Your task to perform on an android device: turn off notifications in google photos Image 0: 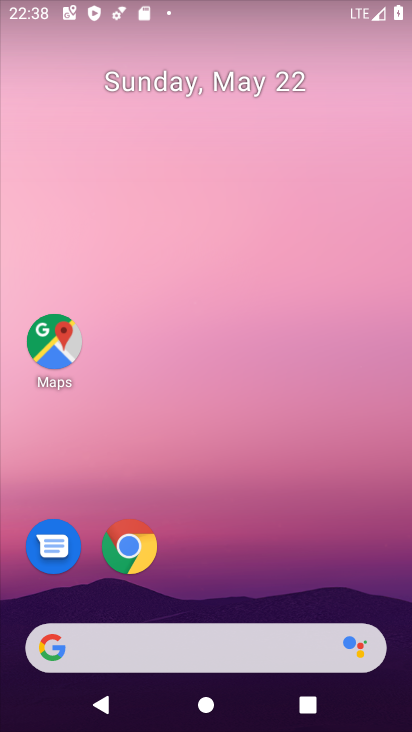
Step 0: click (341, 133)
Your task to perform on an android device: turn off notifications in google photos Image 1: 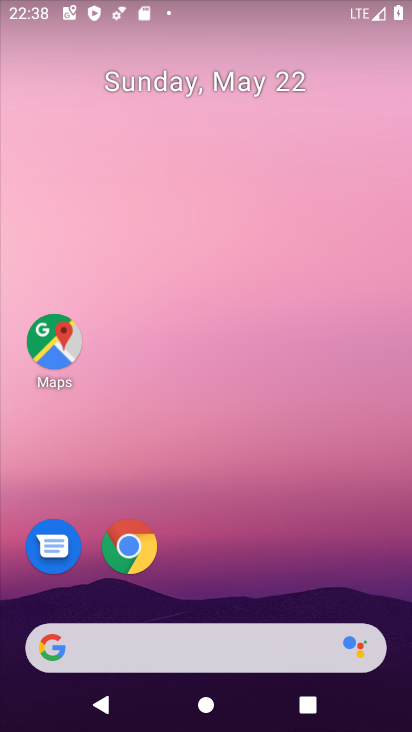
Step 1: drag from (174, 569) to (342, 0)
Your task to perform on an android device: turn off notifications in google photos Image 2: 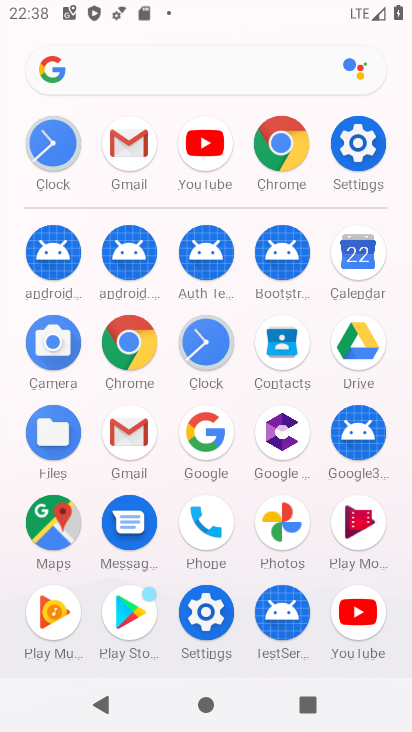
Step 2: click (278, 520)
Your task to perform on an android device: turn off notifications in google photos Image 3: 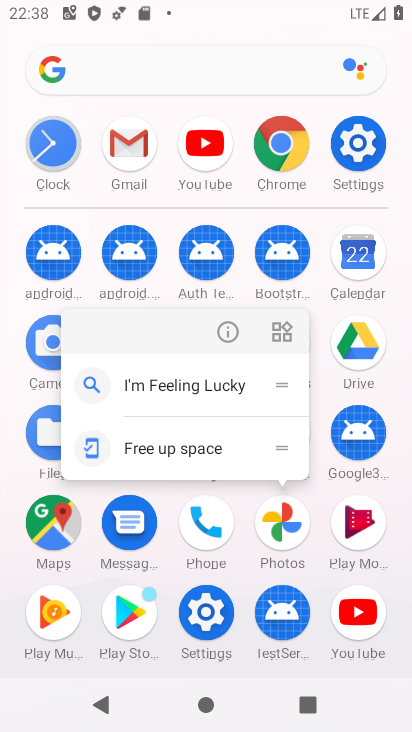
Step 3: click (214, 339)
Your task to perform on an android device: turn off notifications in google photos Image 4: 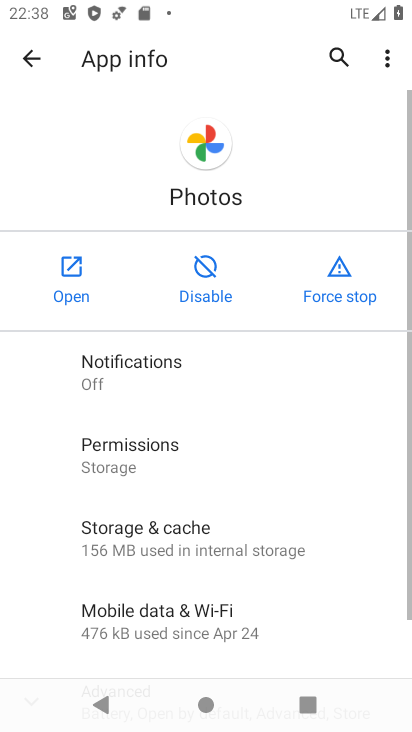
Step 4: click (75, 286)
Your task to perform on an android device: turn off notifications in google photos Image 5: 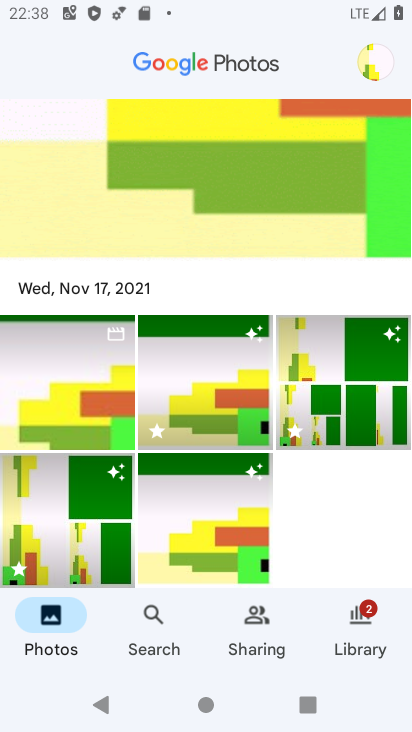
Step 5: click (347, 623)
Your task to perform on an android device: turn off notifications in google photos Image 6: 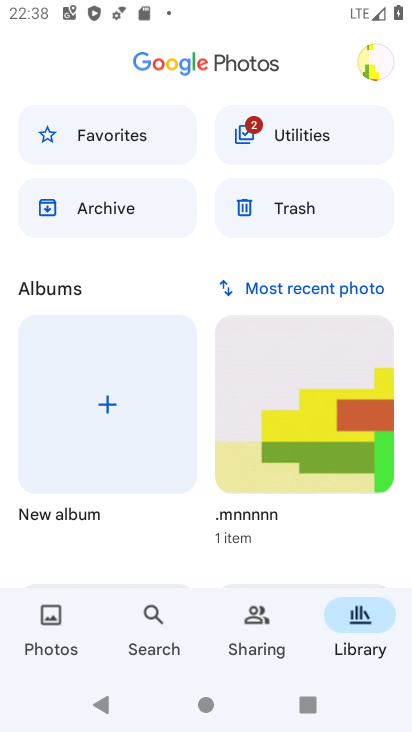
Step 6: click (383, 82)
Your task to perform on an android device: turn off notifications in google photos Image 7: 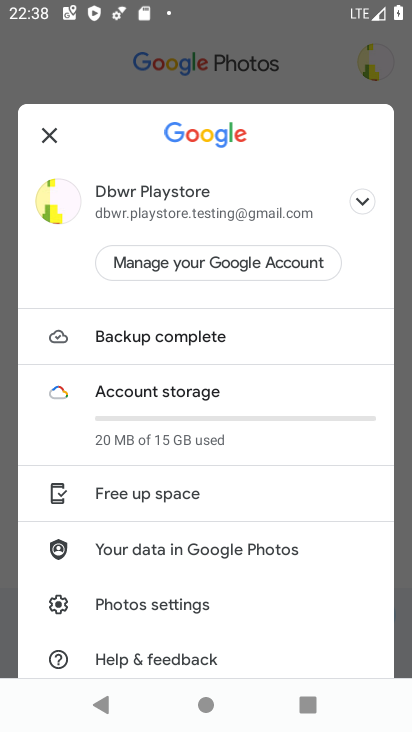
Step 7: click (130, 612)
Your task to perform on an android device: turn off notifications in google photos Image 8: 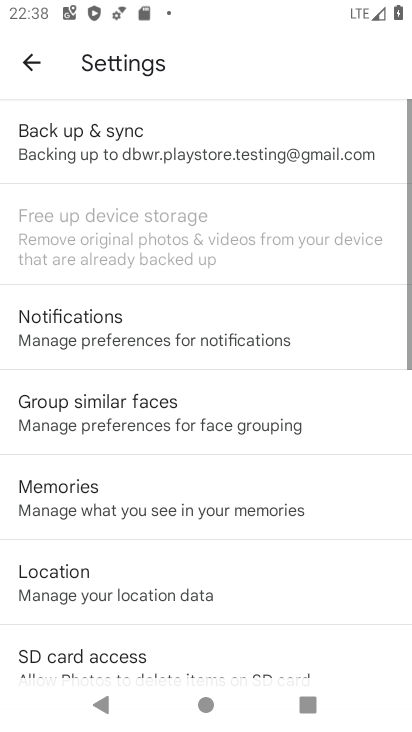
Step 8: drag from (190, 541) to (263, 97)
Your task to perform on an android device: turn off notifications in google photos Image 9: 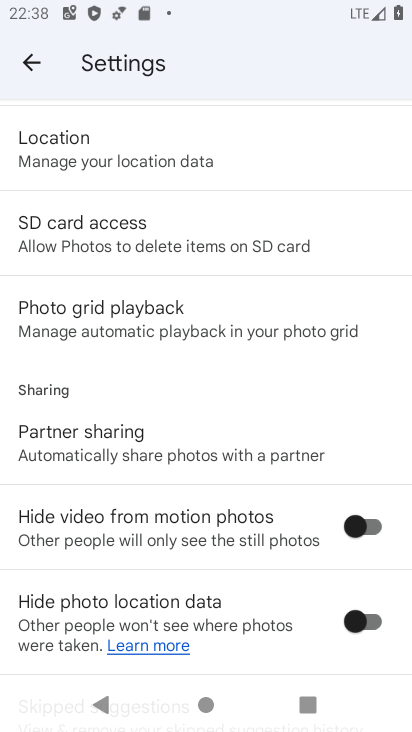
Step 9: drag from (182, 203) to (160, 728)
Your task to perform on an android device: turn off notifications in google photos Image 10: 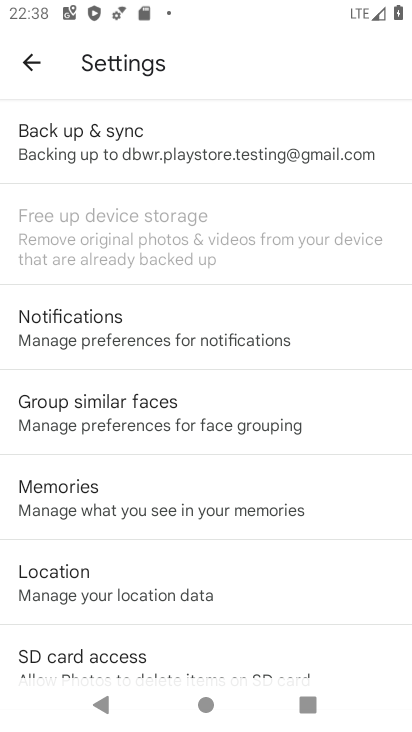
Step 10: click (157, 301)
Your task to perform on an android device: turn off notifications in google photos Image 11: 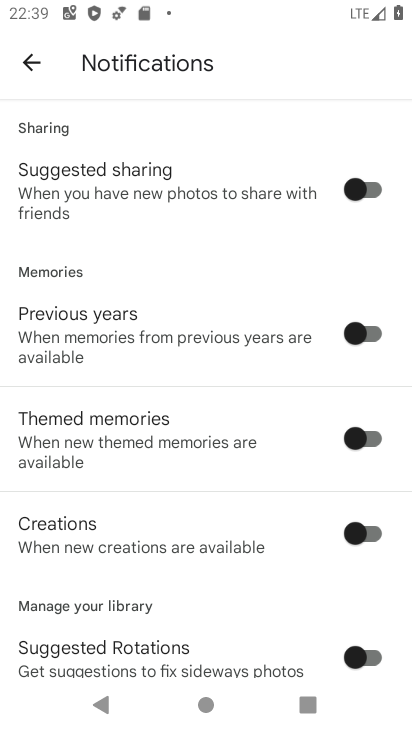
Step 11: drag from (213, 563) to (296, 205)
Your task to perform on an android device: turn off notifications in google photos Image 12: 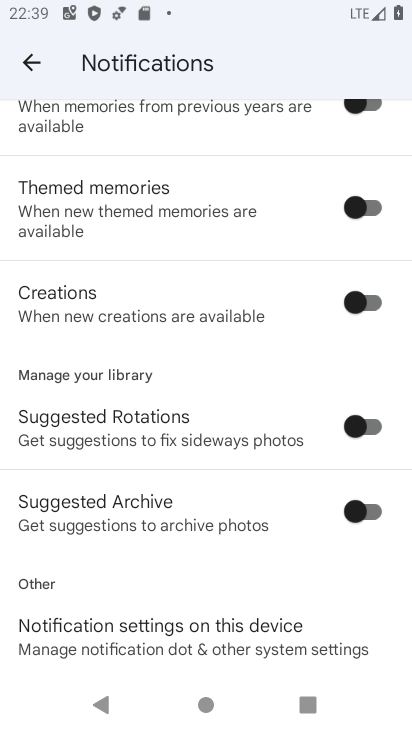
Step 12: click (95, 626)
Your task to perform on an android device: turn off notifications in google photos Image 13: 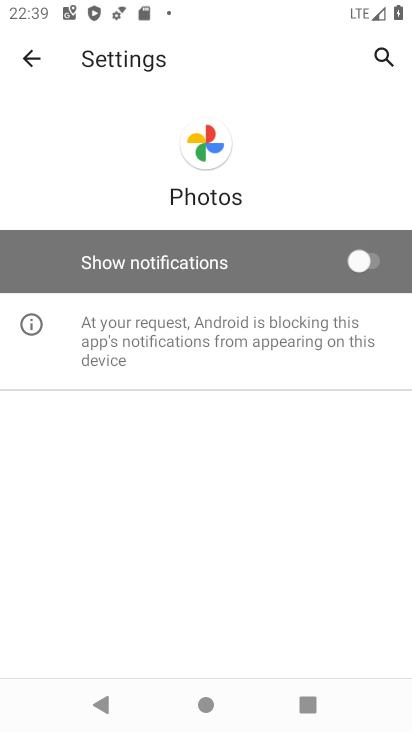
Step 13: task complete